Your task to perform on an android device: toggle notification dots Image 0: 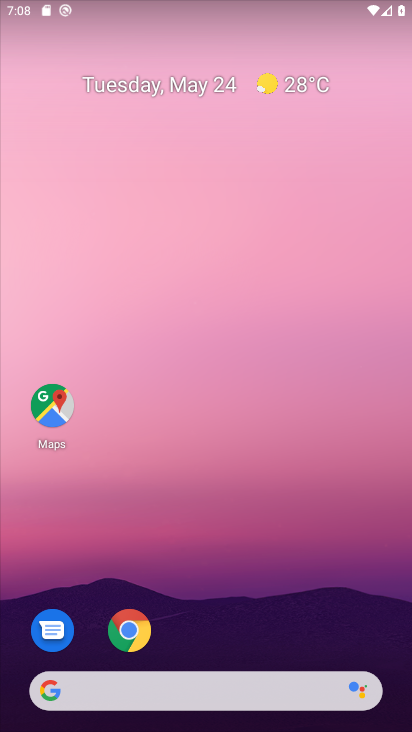
Step 0: drag from (256, 615) to (167, 216)
Your task to perform on an android device: toggle notification dots Image 1: 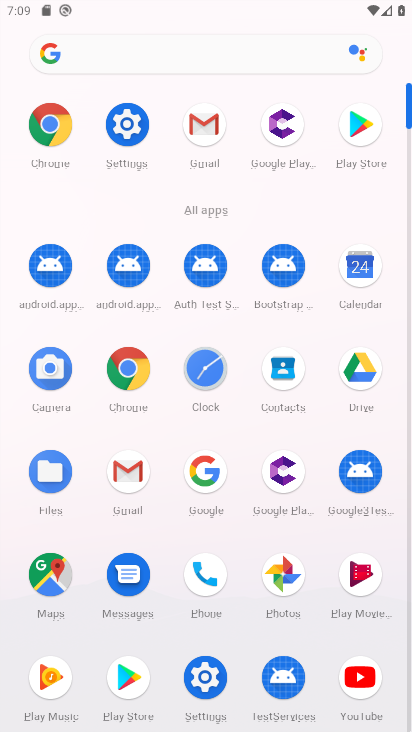
Step 1: click (147, 150)
Your task to perform on an android device: toggle notification dots Image 2: 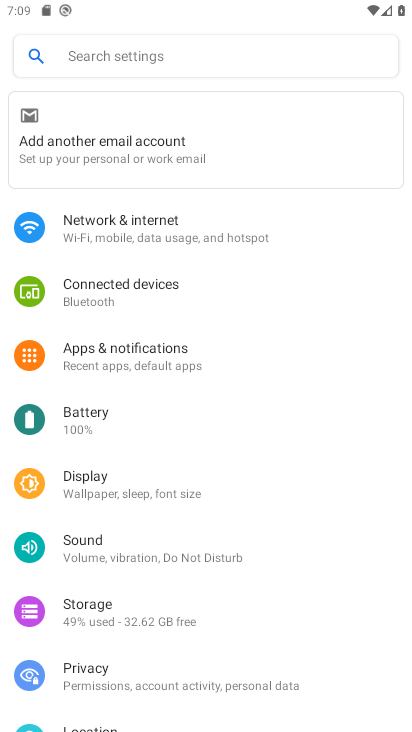
Step 2: click (162, 55)
Your task to perform on an android device: toggle notification dots Image 3: 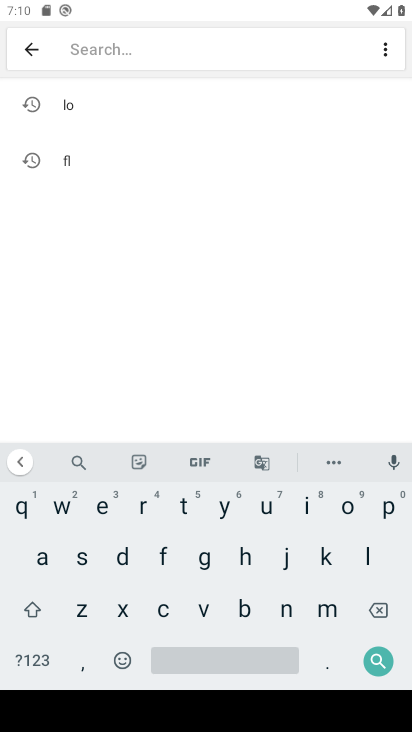
Step 3: click (104, 39)
Your task to perform on an android device: toggle notification dots Image 4: 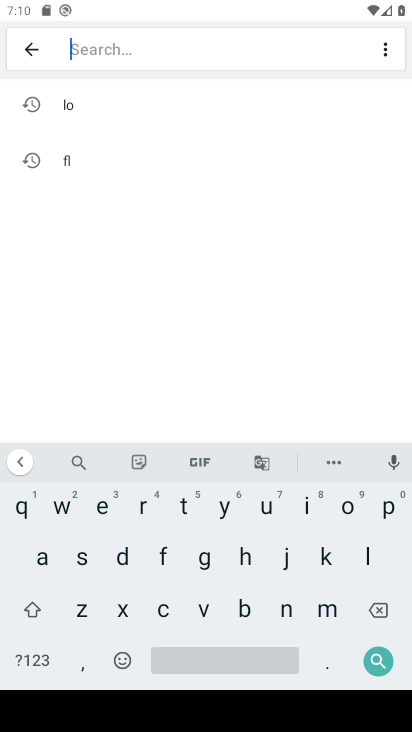
Step 4: click (127, 557)
Your task to perform on an android device: toggle notification dots Image 5: 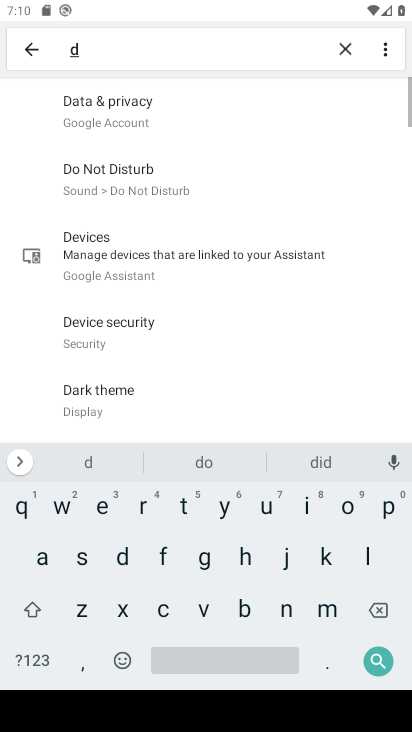
Step 5: click (342, 519)
Your task to perform on an android device: toggle notification dots Image 6: 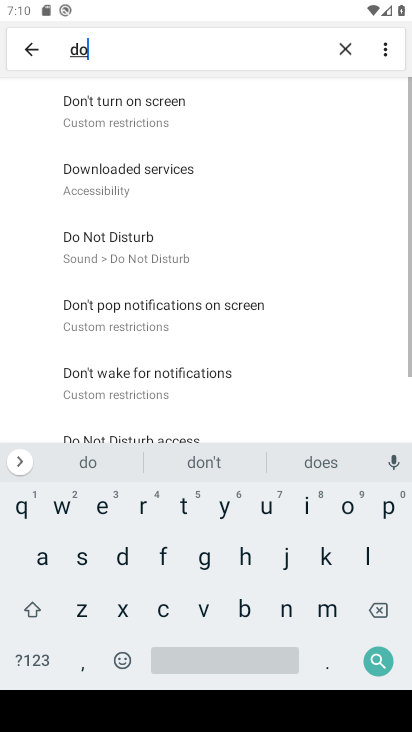
Step 6: click (189, 513)
Your task to perform on an android device: toggle notification dots Image 7: 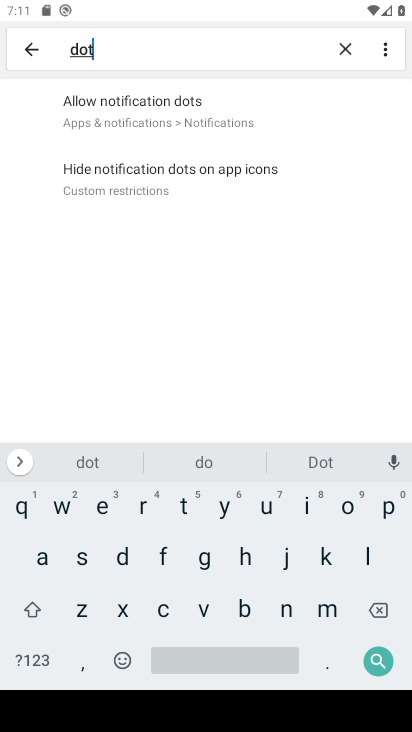
Step 7: click (196, 111)
Your task to perform on an android device: toggle notification dots Image 8: 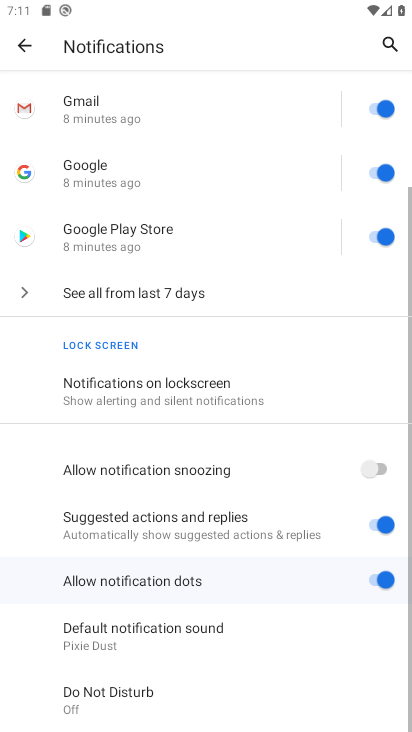
Step 8: task complete